Your task to perform on an android device: Show me productivity apps on the Play Store Image 0: 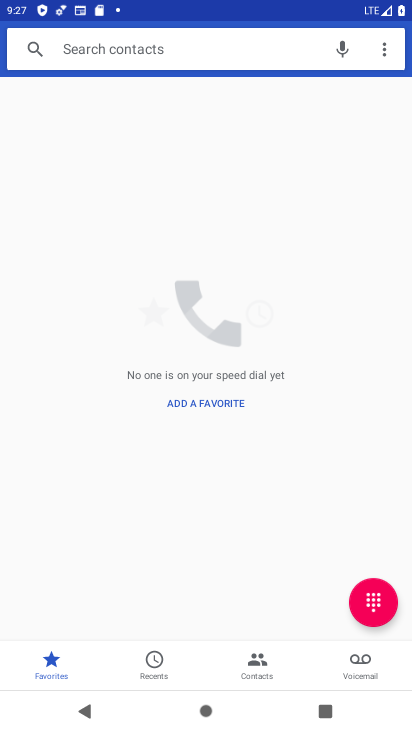
Step 0: press home button
Your task to perform on an android device: Show me productivity apps on the Play Store Image 1: 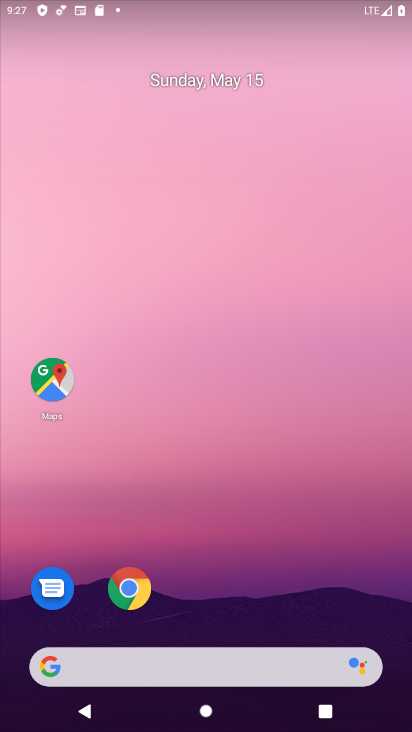
Step 1: drag from (228, 583) to (232, 122)
Your task to perform on an android device: Show me productivity apps on the Play Store Image 2: 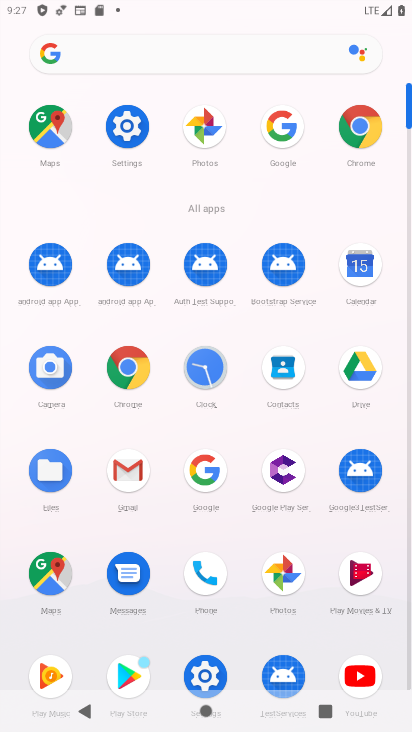
Step 2: click (124, 660)
Your task to perform on an android device: Show me productivity apps on the Play Store Image 3: 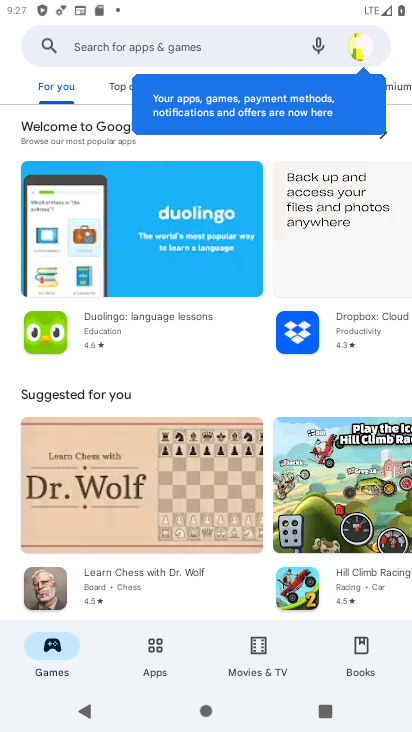
Step 3: click (176, 49)
Your task to perform on an android device: Show me productivity apps on the Play Store Image 4: 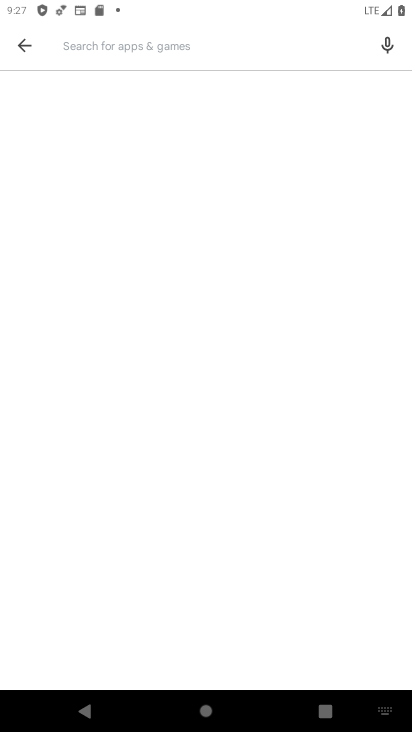
Step 4: type "productivity app"
Your task to perform on an android device: Show me productivity apps on the Play Store Image 5: 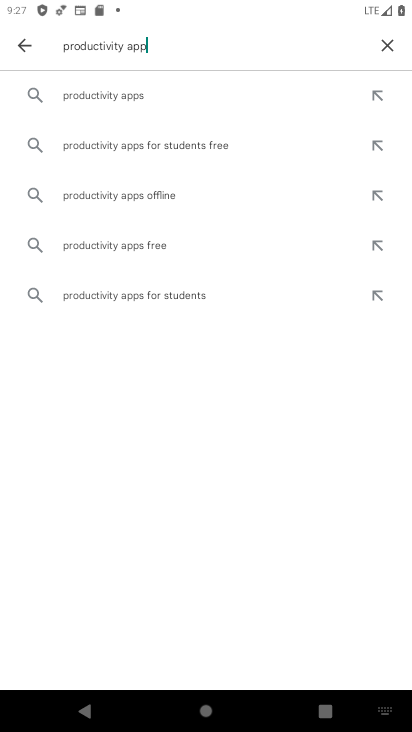
Step 5: click (130, 96)
Your task to perform on an android device: Show me productivity apps on the Play Store Image 6: 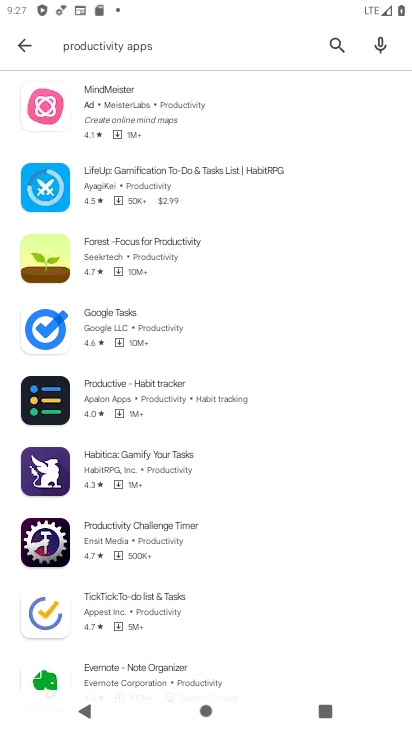
Step 6: task complete